Your task to perform on an android device: Is it going to rain this weekend? Image 0: 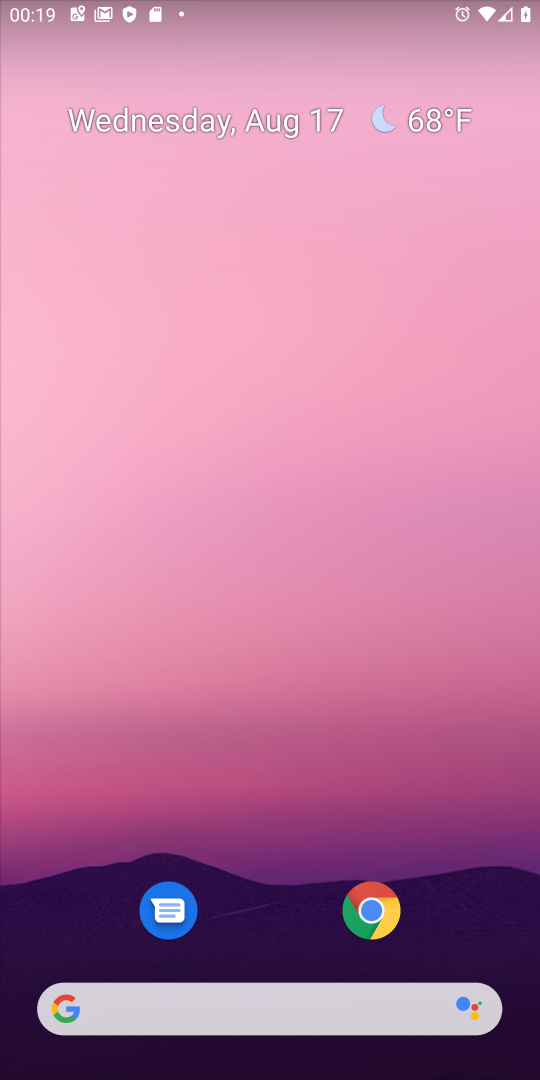
Step 0: click (428, 112)
Your task to perform on an android device: Is it going to rain this weekend? Image 1: 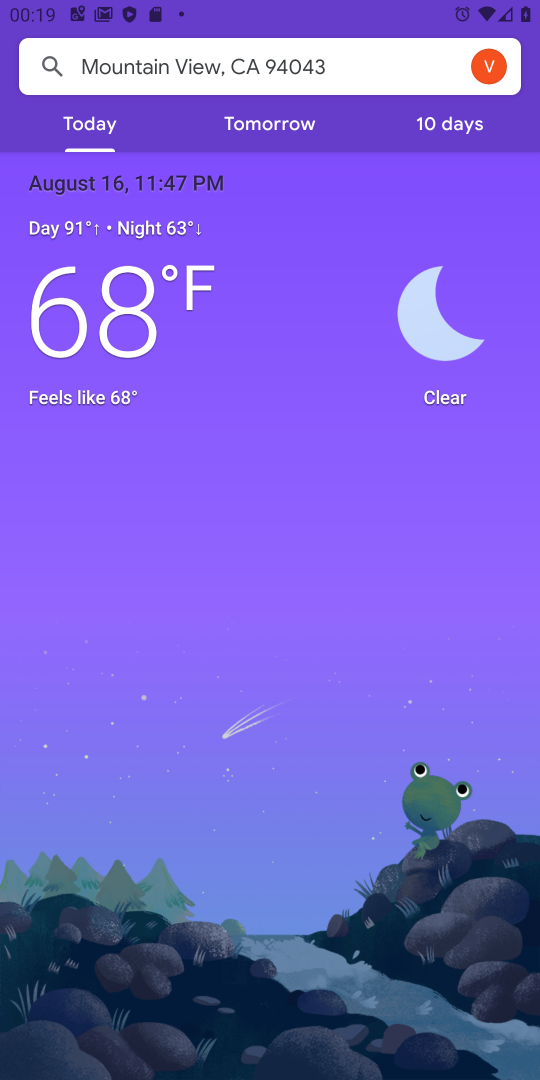
Step 1: click (465, 130)
Your task to perform on an android device: Is it going to rain this weekend? Image 2: 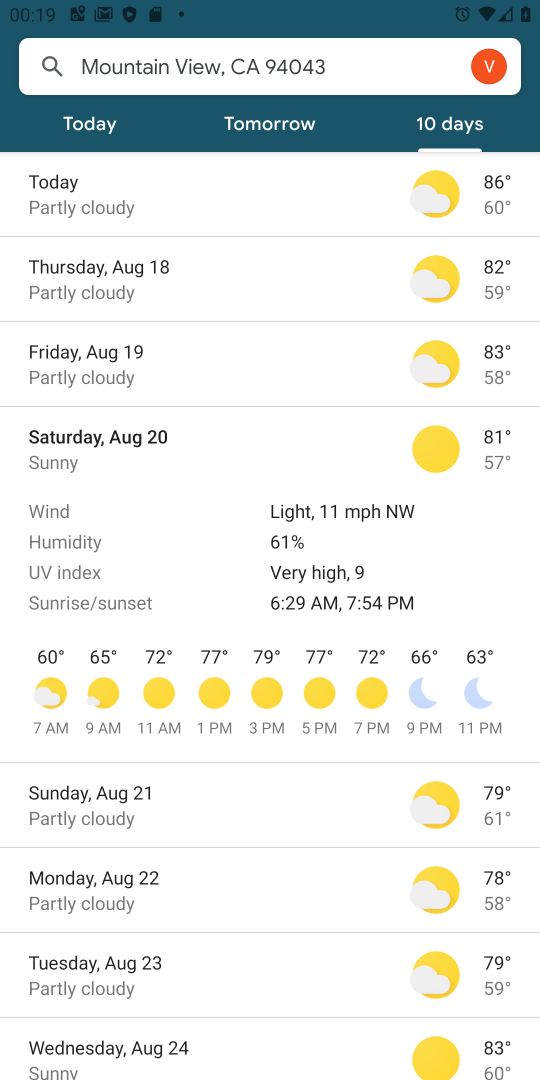
Step 2: task complete